Your task to perform on an android device: Open Google Chrome and click the shortcut for Amazon.com Image 0: 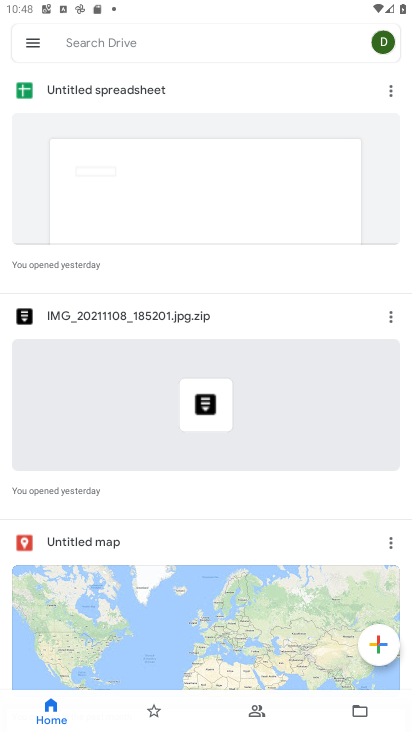
Step 0: press home button
Your task to perform on an android device: Open Google Chrome and click the shortcut for Amazon.com Image 1: 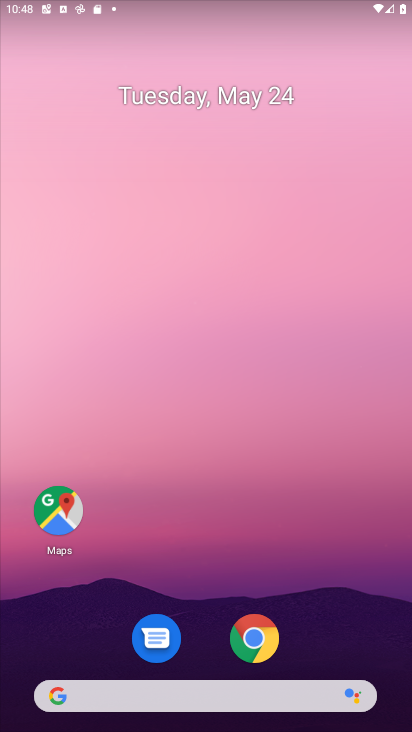
Step 1: click (257, 641)
Your task to perform on an android device: Open Google Chrome and click the shortcut for Amazon.com Image 2: 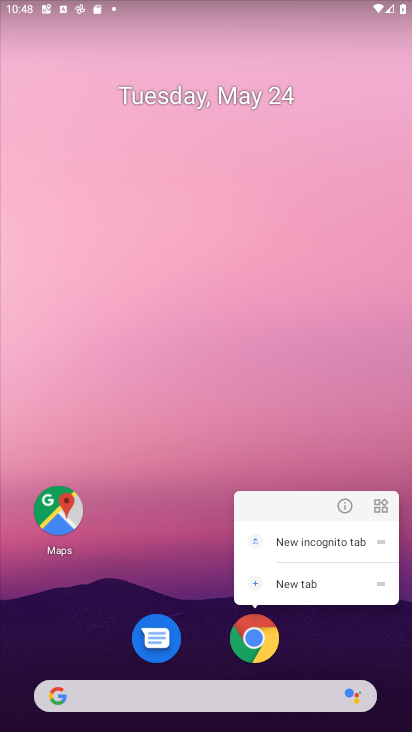
Step 2: click (255, 641)
Your task to perform on an android device: Open Google Chrome and click the shortcut for Amazon.com Image 3: 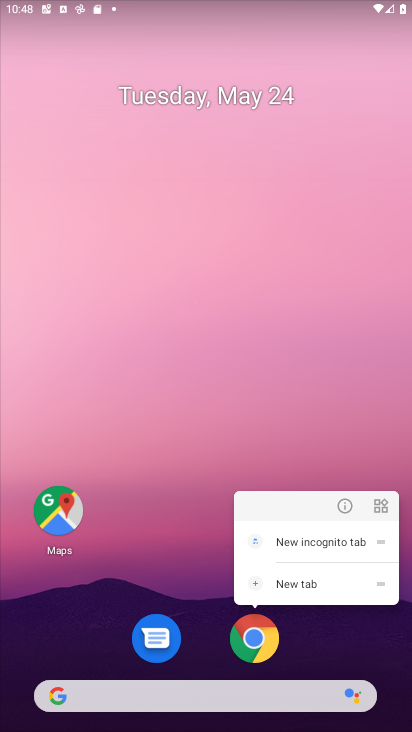
Step 3: click (255, 641)
Your task to perform on an android device: Open Google Chrome and click the shortcut for Amazon.com Image 4: 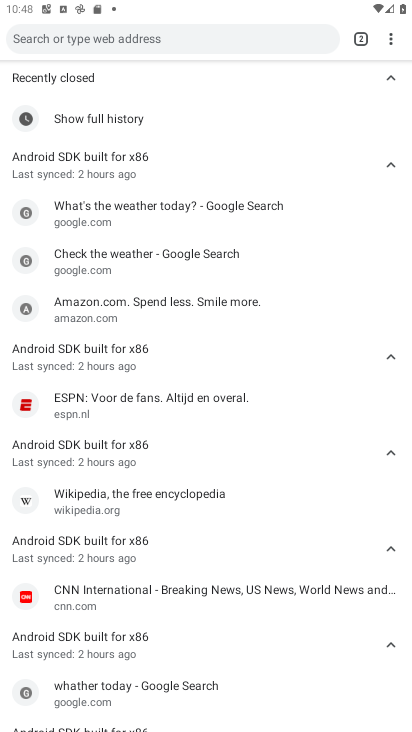
Step 4: click (391, 33)
Your task to perform on an android device: Open Google Chrome and click the shortcut for Amazon.com Image 5: 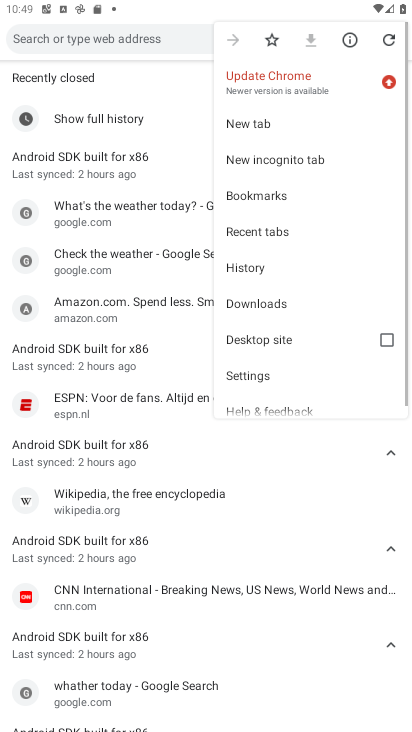
Step 5: click (272, 116)
Your task to perform on an android device: Open Google Chrome and click the shortcut for Amazon.com Image 6: 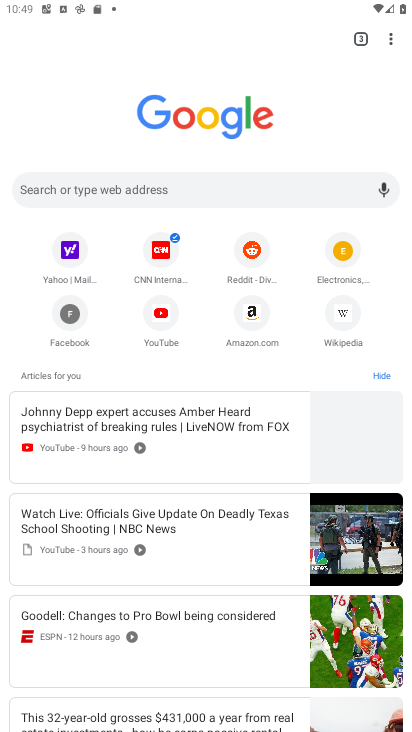
Step 6: click (255, 315)
Your task to perform on an android device: Open Google Chrome and click the shortcut for Amazon.com Image 7: 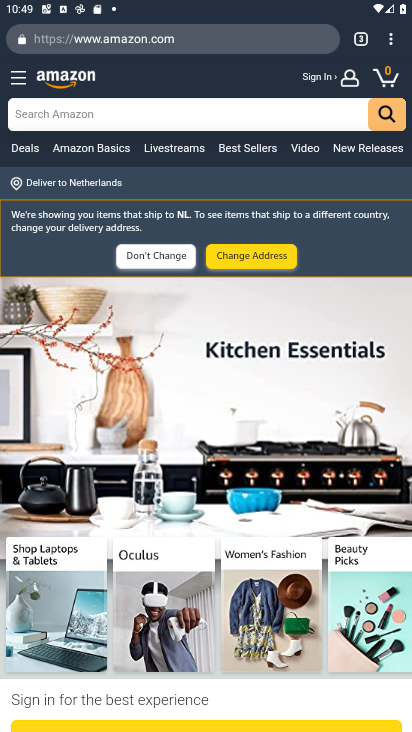
Step 7: task complete